Your task to perform on an android device: see creations saved in the google photos Image 0: 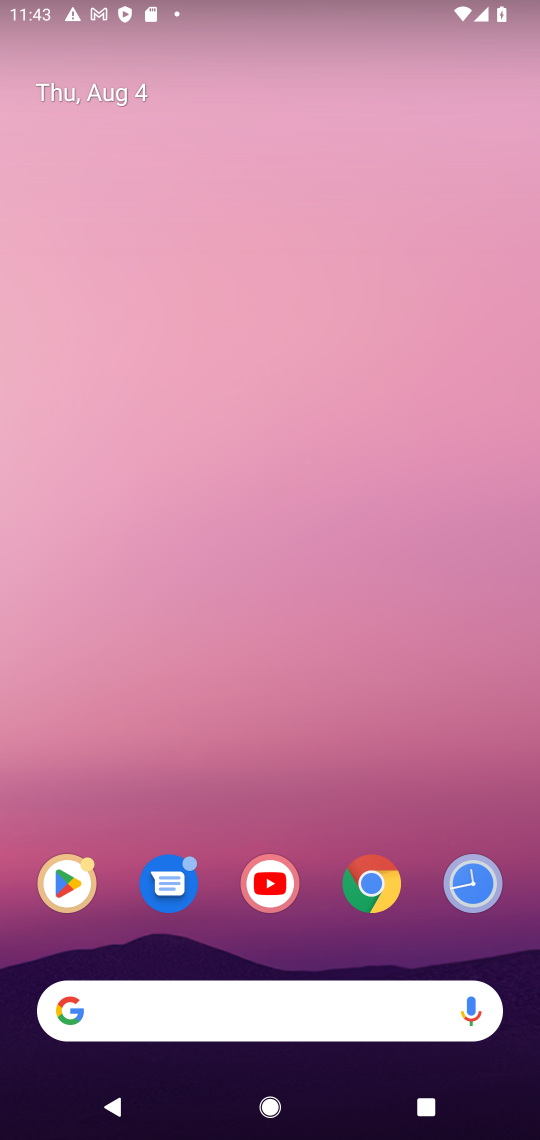
Step 0: drag from (286, 776) to (398, 123)
Your task to perform on an android device: see creations saved in the google photos Image 1: 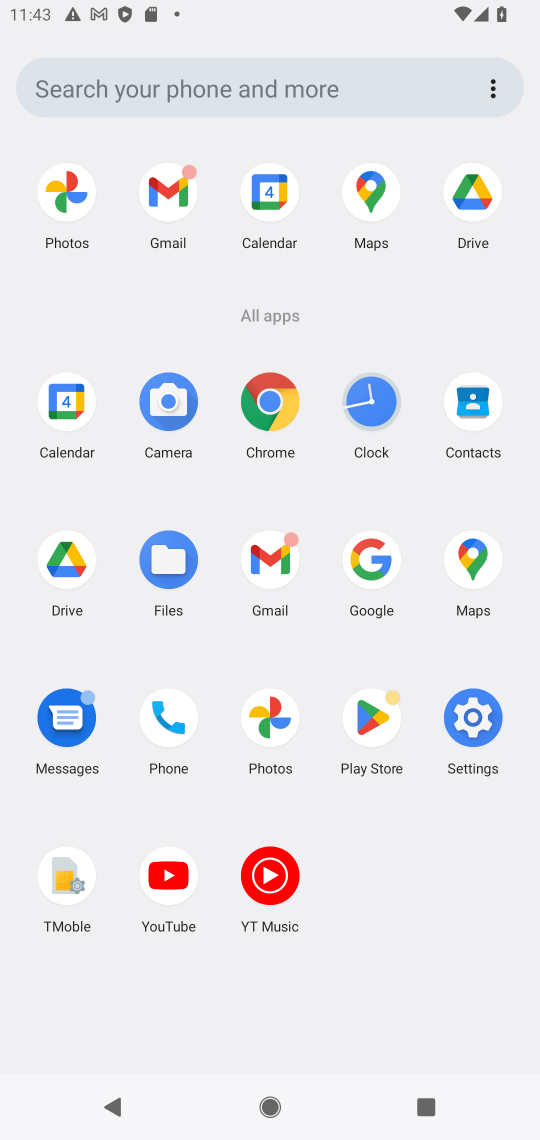
Step 1: drag from (303, 943) to (348, 361)
Your task to perform on an android device: see creations saved in the google photos Image 2: 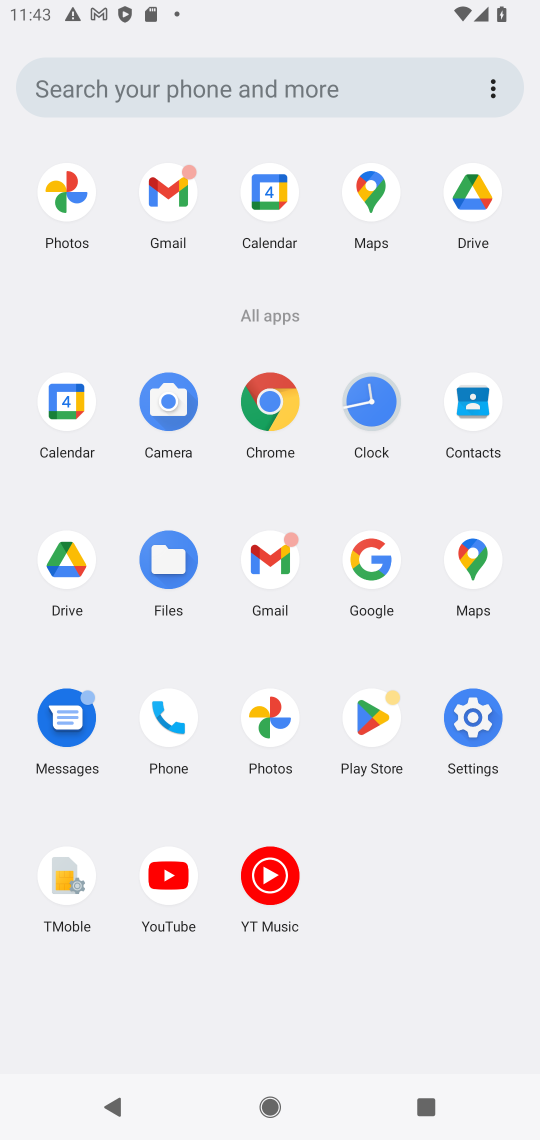
Step 2: click (255, 717)
Your task to perform on an android device: see creations saved in the google photos Image 3: 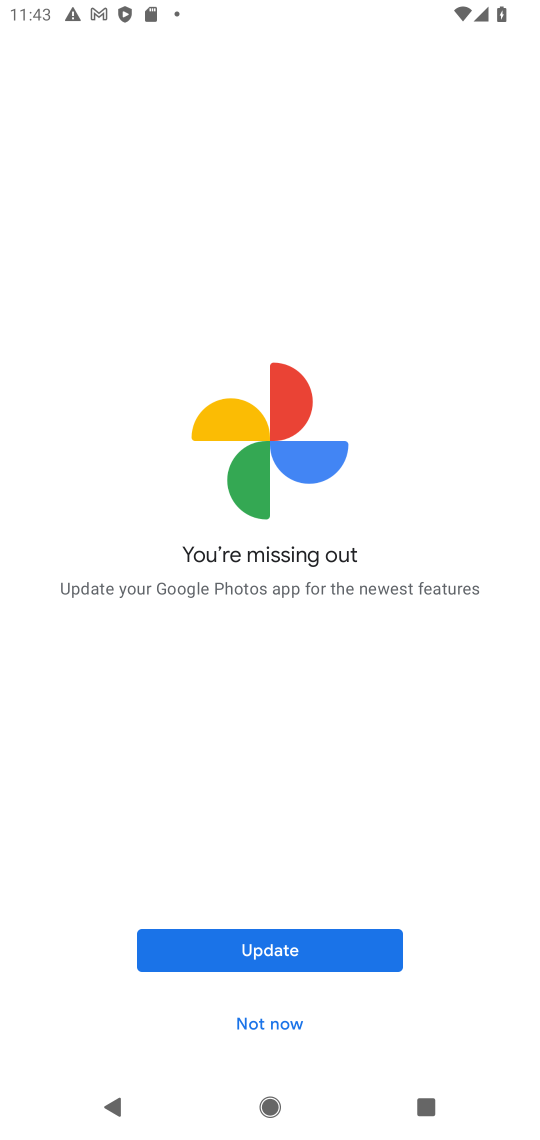
Step 3: click (263, 1009)
Your task to perform on an android device: see creations saved in the google photos Image 4: 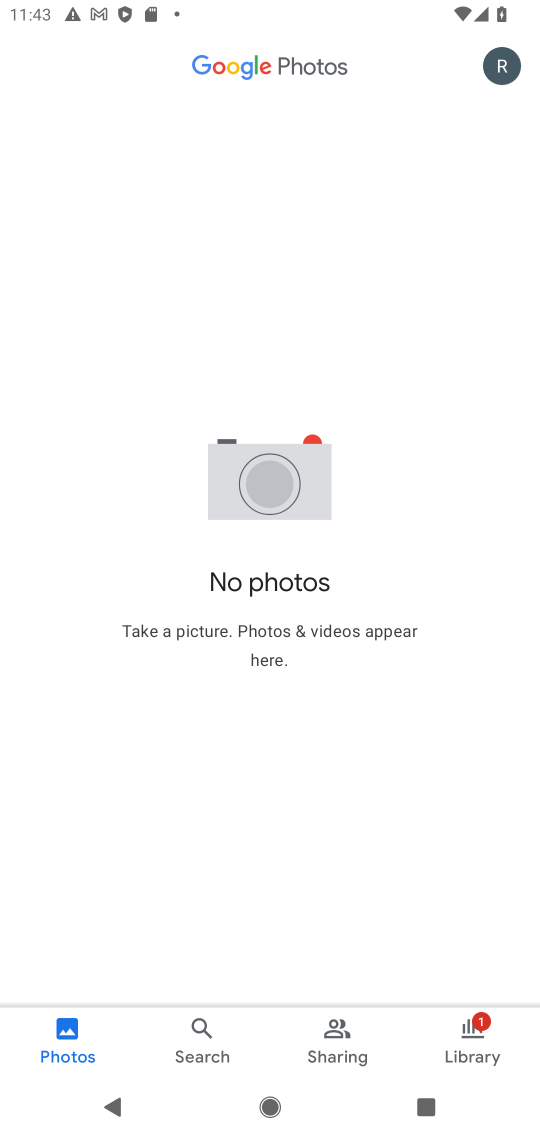
Step 4: drag from (259, 766) to (343, 273)
Your task to perform on an android device: see creations saved in the google photos Image 5: 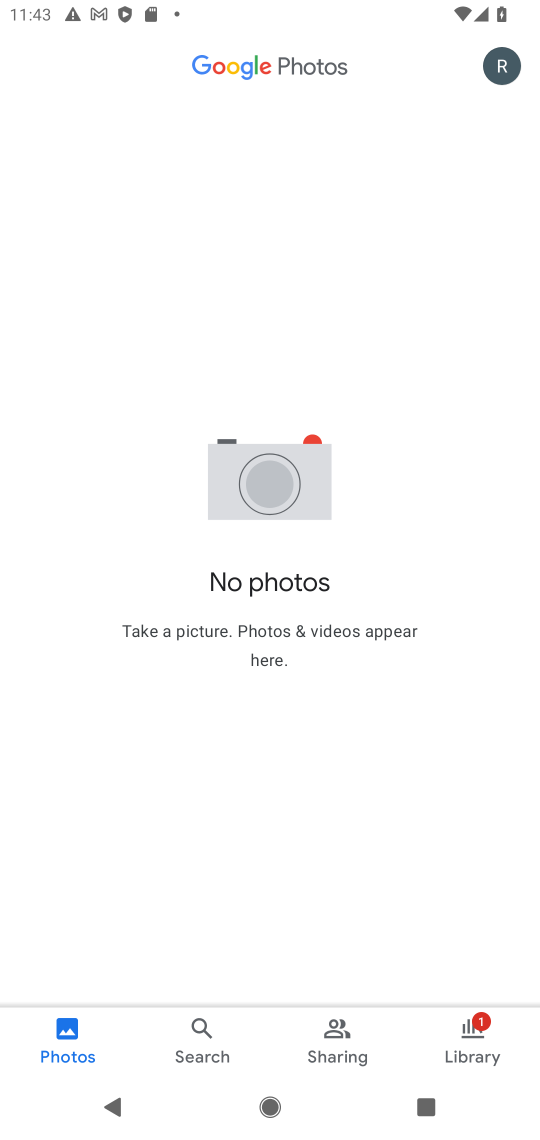
Step 5: click (202, 1030)
Your task to perform on an android device: see creations saved in the google photos Image 6: 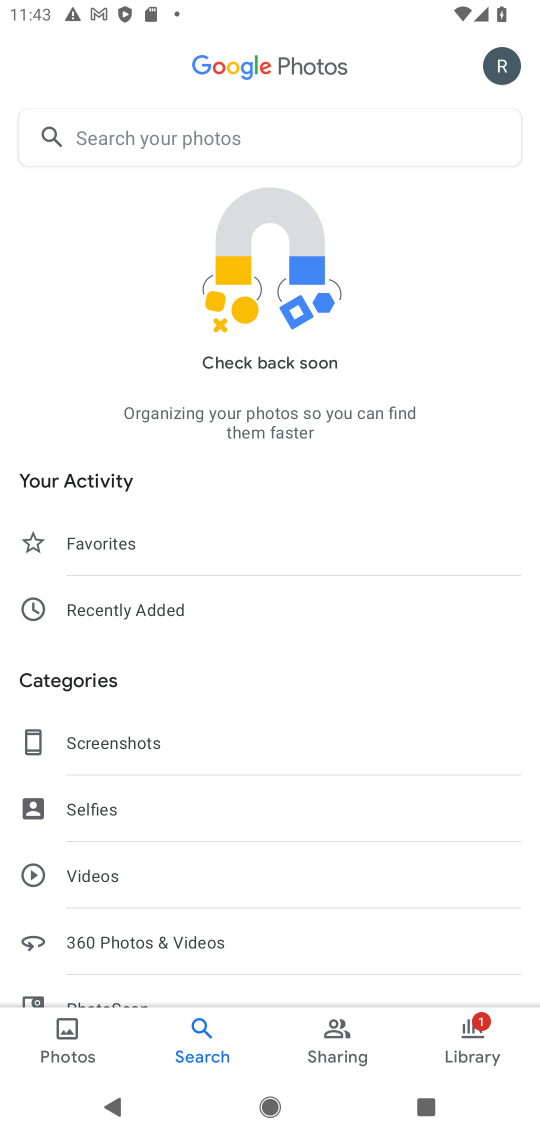
Step 6: drag from (213, 910) to (315, 89)
Your task to perform on an android device: see creations saved in the google photos Image 7: 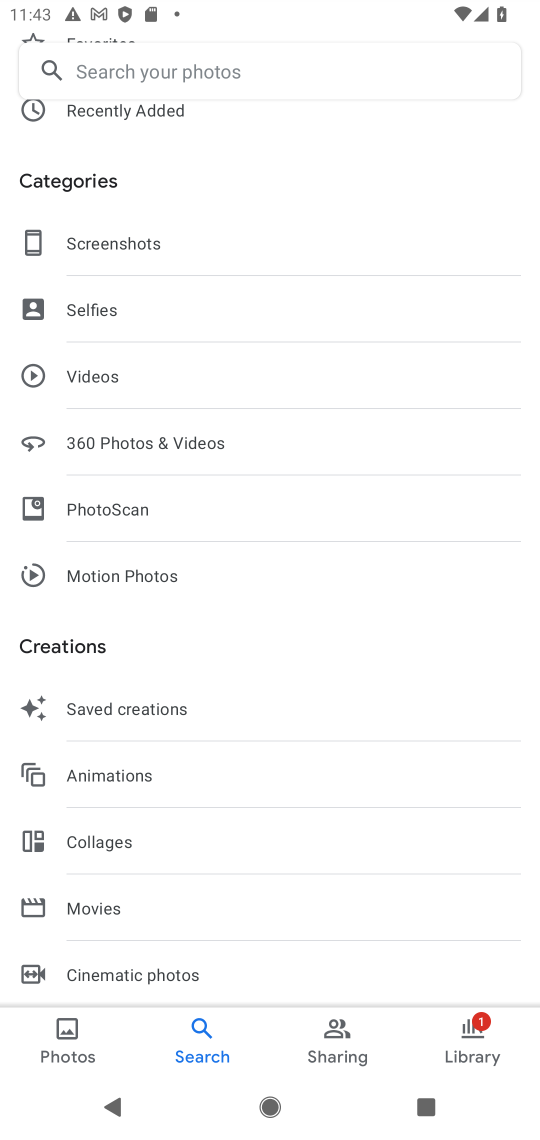
Step 7: drag from (219, 902) to (326, 7)
Your task to perform on an android device: see creations saved in the google photos Image 8: 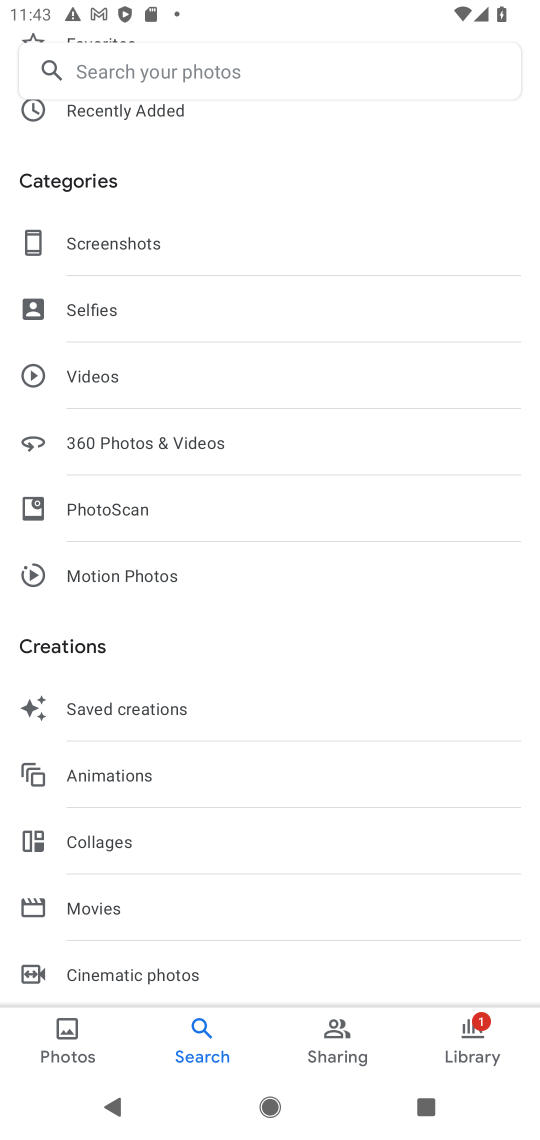
Step 8: click (96, 702)
Your task to perform on an android device: see creations saved in the google photos Image 9: 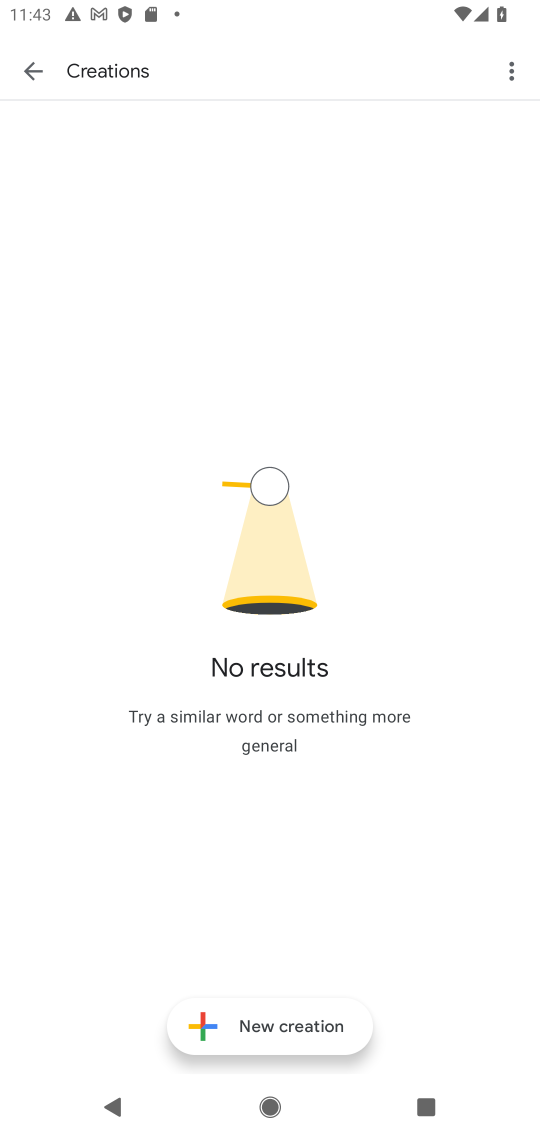
Step 9: task complete